Your task to perform on an android device: Open the Play Movies app and select the watchlist tab. Image 0: 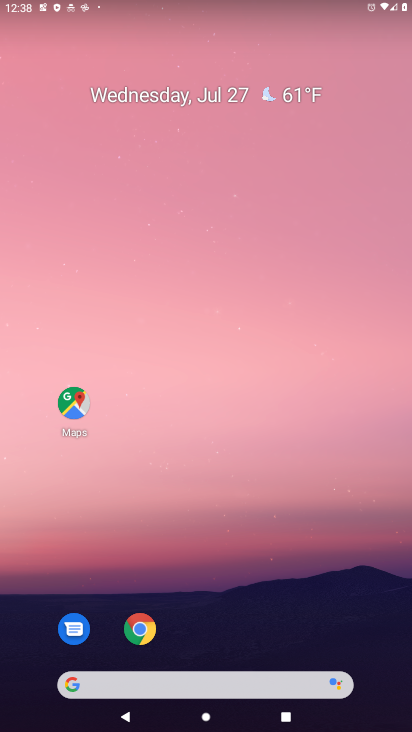
Step 0: drag from (271, 633) to (268, 232)
Your task to perform on an android device: Open the Play Movies app and select the watchlist tab. Image 1: 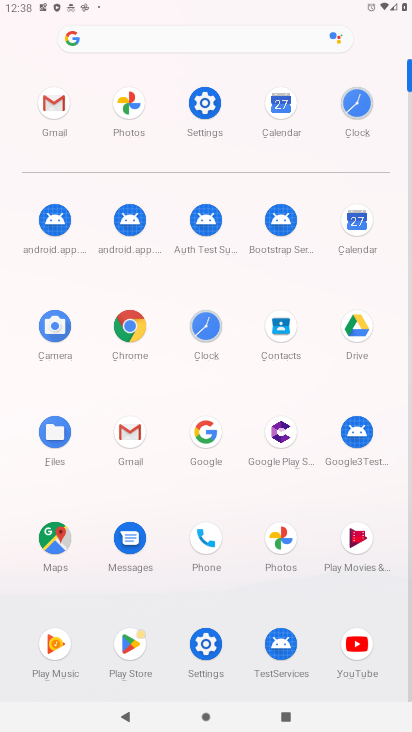
Step 1: click (341, 538)
Your task to perform on an android device: Open the Play Movies app and select the watchlist tab. Image 2: 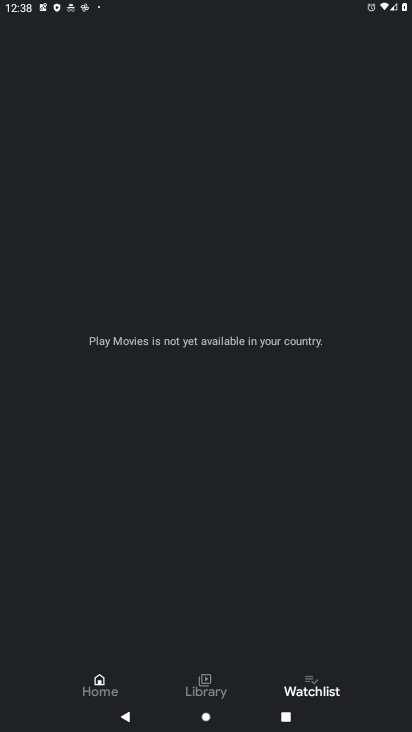
Step 2: task complete